Your task to perform on an android device: change the clock display to analog Image 0: 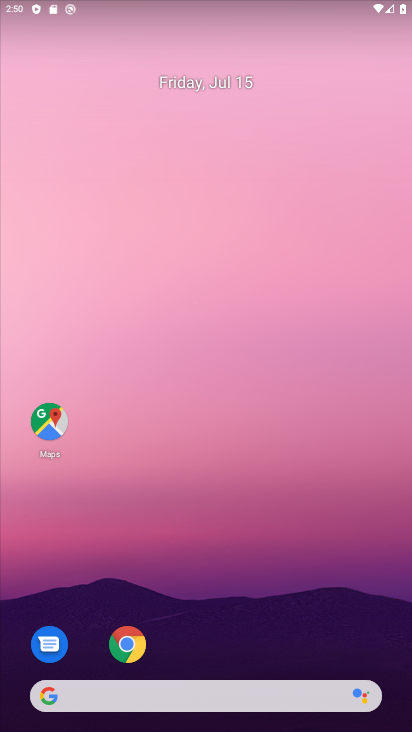
Step 0: drag from (206, 573) to (283, 68)
Your task to perform on an android device: change the clock display to analog Image 1: 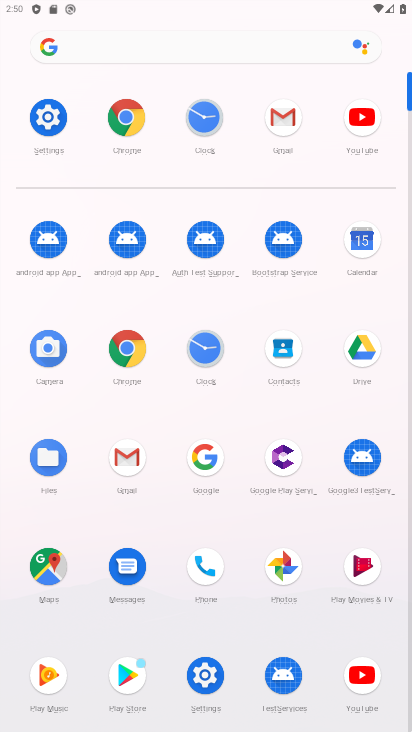
Step 1: click (206, 115)
Your task to perform on an android device: change the clock display to analog Image 2: 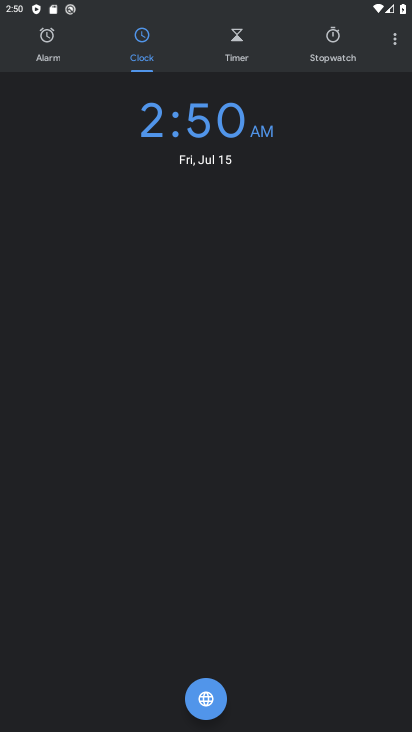
Step 2: click (392, 33)
Your task to perform on an android device: change the clock display to analog Image 3: 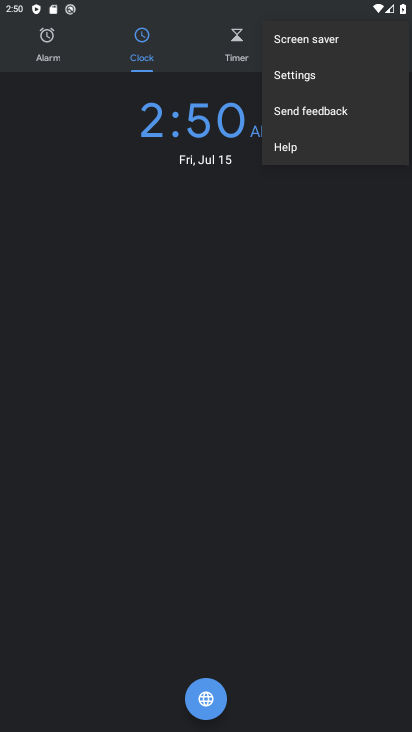
Step 3: click (314, 78)
Your task to perform on an android device: change the clock display to analog Image 4: 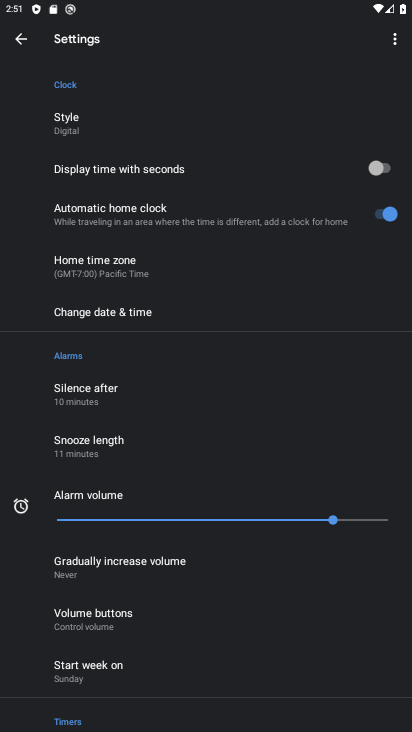
Step 4: click (122, 128)
Your task to perform on an android device: change the clock display to analog Image 5: 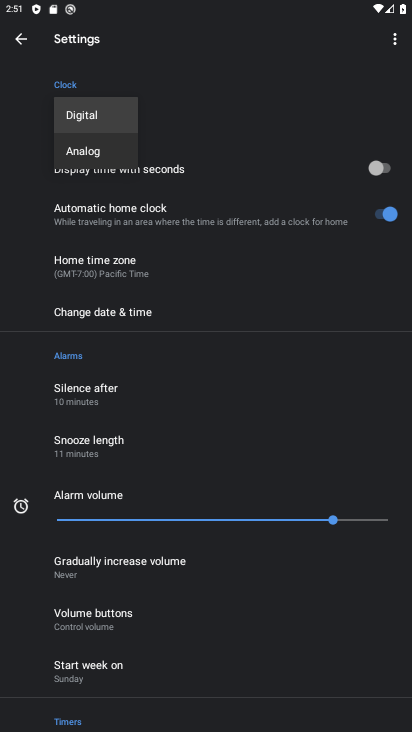
Step 5: click (76, 149)
Your task to perform on an android device: change the clock display to analog Image 6: 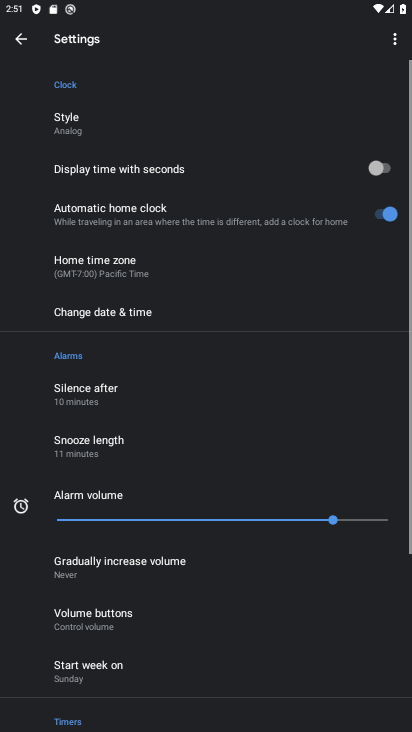
Step 6: task complete